Your task to perform on an android device: create a new album in the google photos Image 0: 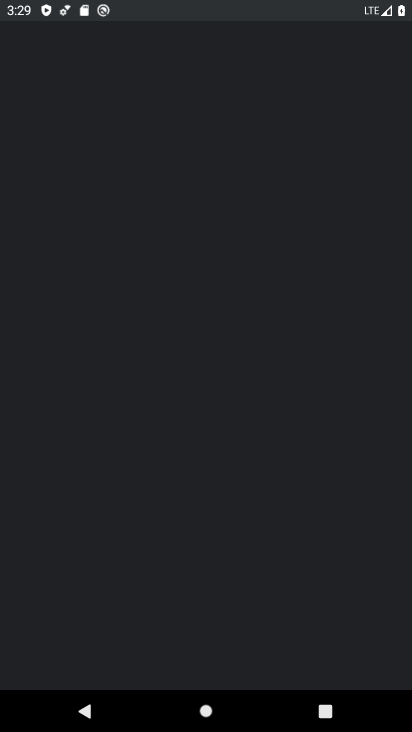
Step 0: drag from (309, 724) to (313, 289)
Your task to perform on an android device: create a new album in the google photos Image 1: 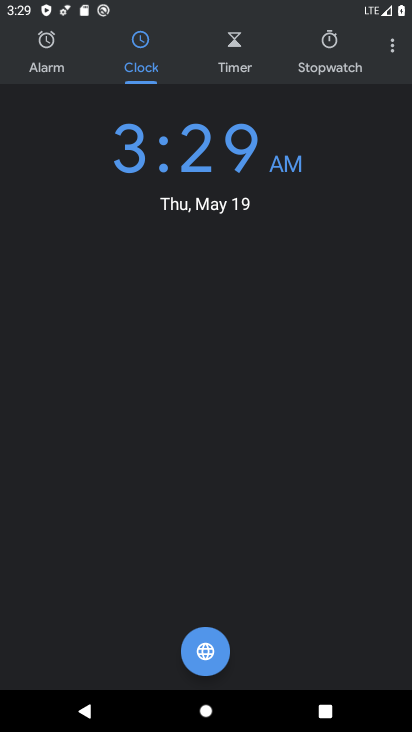
Step 1: press home button
Your task to perform on an android device: create a new album in the google photos Image 2: 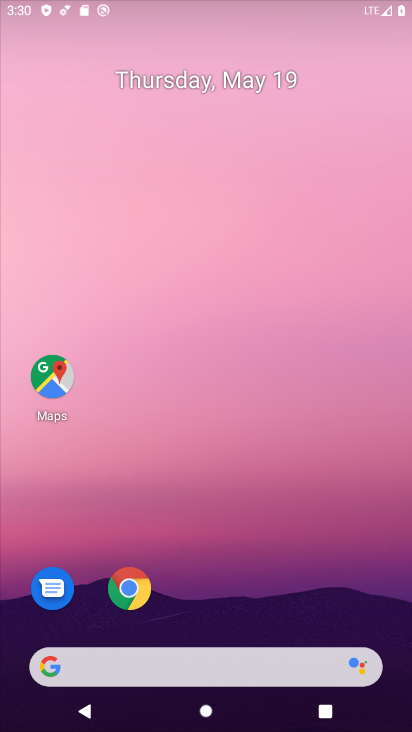
Step 2: drag from (267, 681) to (261, 174)
Your task to perform on an android device: create a new album in the google photos Image 3: 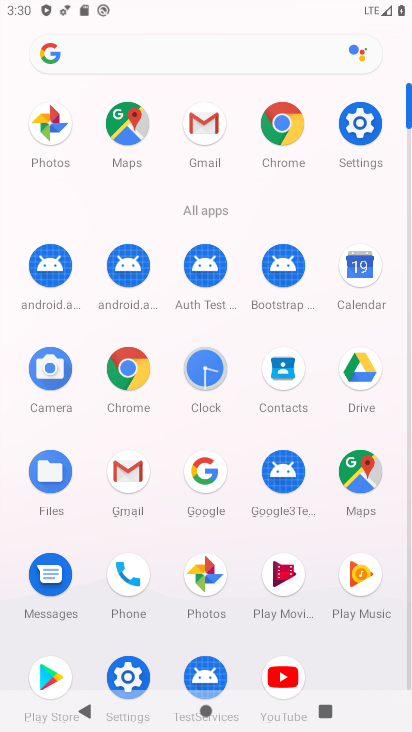
Step 3: click (219, 573)
Your task to perform on an android device: create a new album in the google photos Image 4: 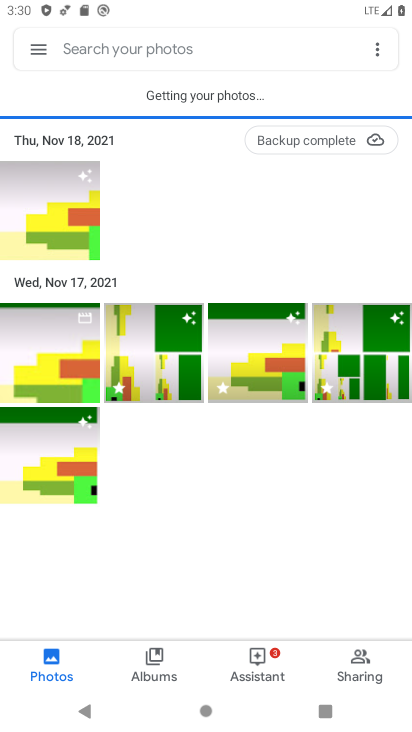
Step 4: click (257, 357)
Your task to perform on an android device: create a new album in the google photos Image 5: 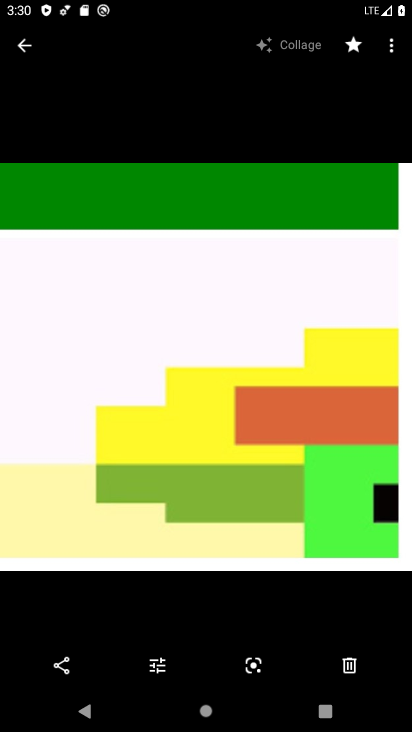
Step 5: click (390, 54)
Your task to perform on an android device: create a new album in the google photos Image 6: 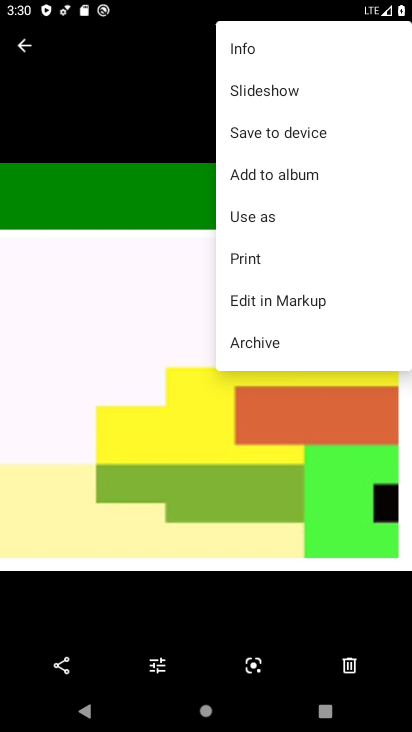
Step 6: click (259, 176)
Your task to perform on an android device: create a new album in the google photos Image 7: 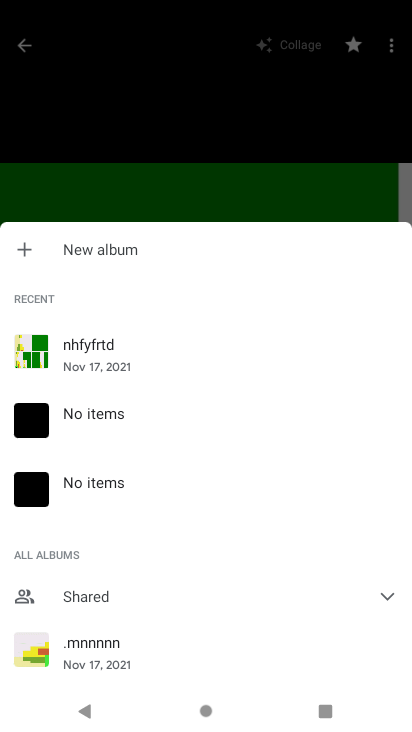
Step 7: click (42, 244)
Your task to perform on an android device: create a new album in the google photos Image 8: 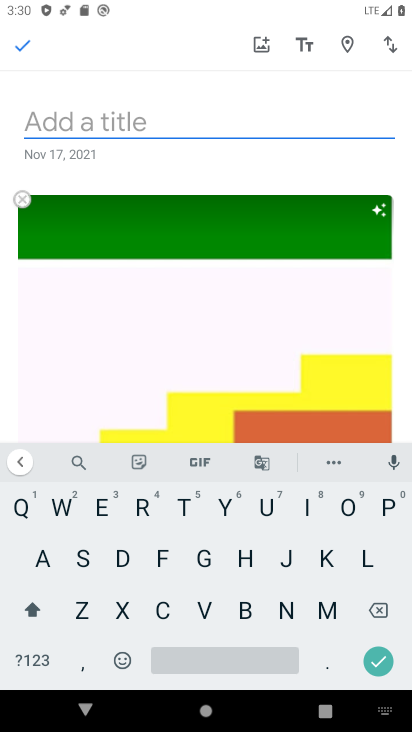
Step 8: click (143, 507)
Your task to perform on an android device: create a new album in the google photos Image 9: 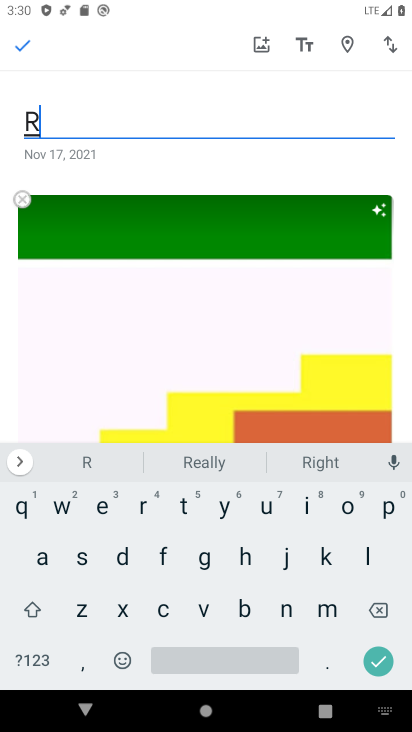
Step 9: click (178, 552)
Your task to perform on an android device: create a new album in the google photos Image 10: 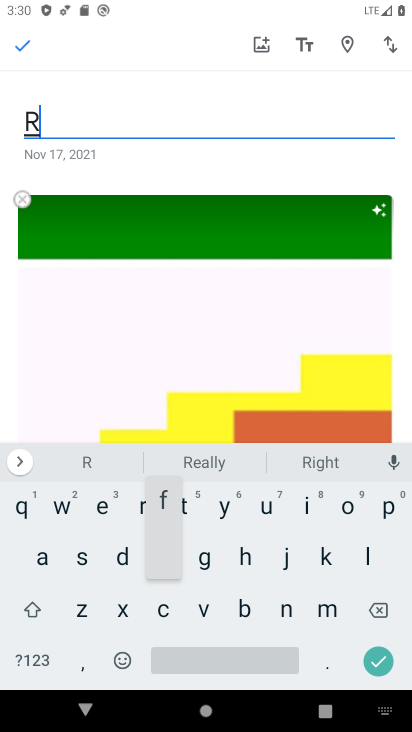
Step 10: click (225, 564)
Your task to perform on an android device: create a new album in the google photos Image 11: 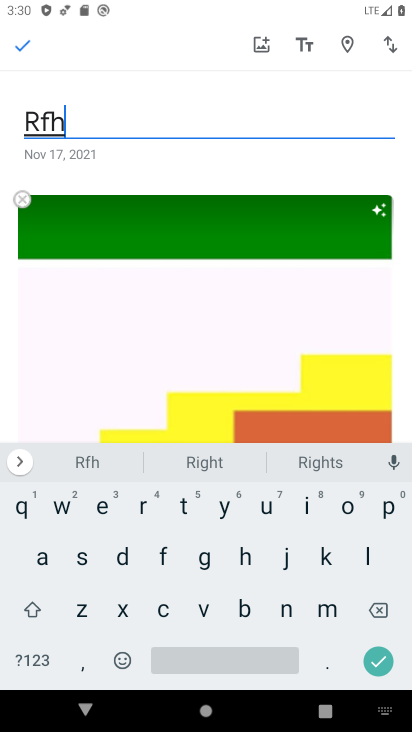
Step 11: click (23, 45)
Your task to perform on an android device: create a new album in the google photos Image 12: 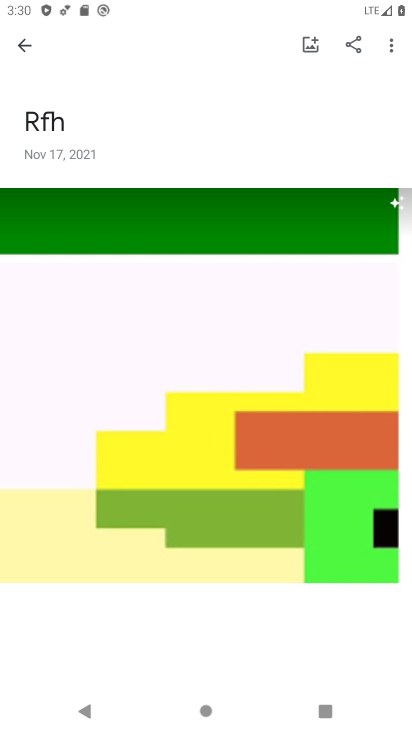
Step 12: task complete